Your task to perform on an android device: Open notification settings Image 0: 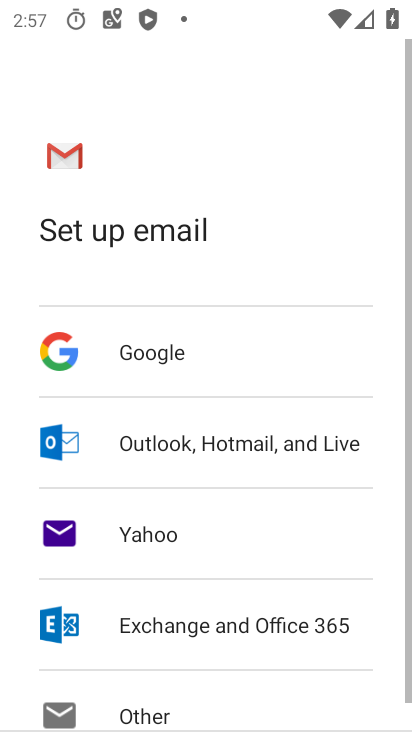
Step 0: press home button
Your task to perform on an android device: Open notification settings Image 1: 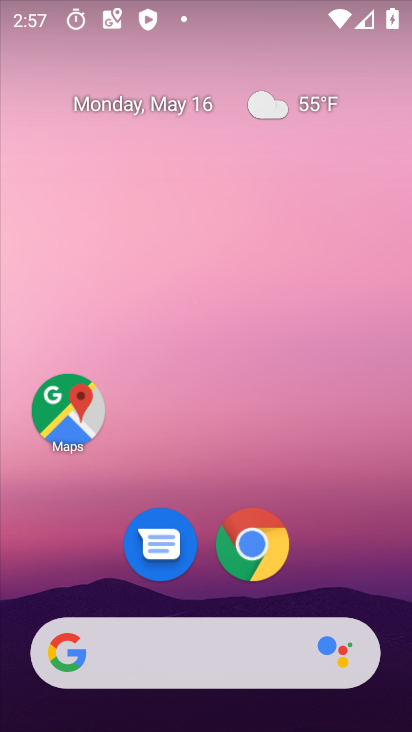
Step 1: drag from (361, 84) to (378, 5)
Your task to perform on an android device: Open notification settings Image 2: 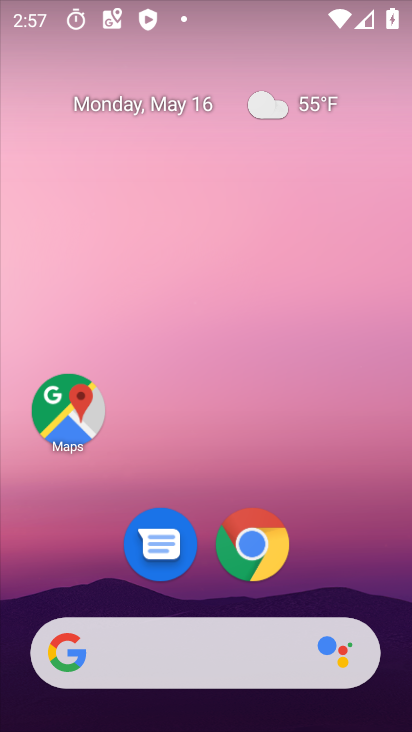
Step 2: drag from (353, 441) to (267, 24)
Your task to perform on an android device: Open notification settings Image 3: 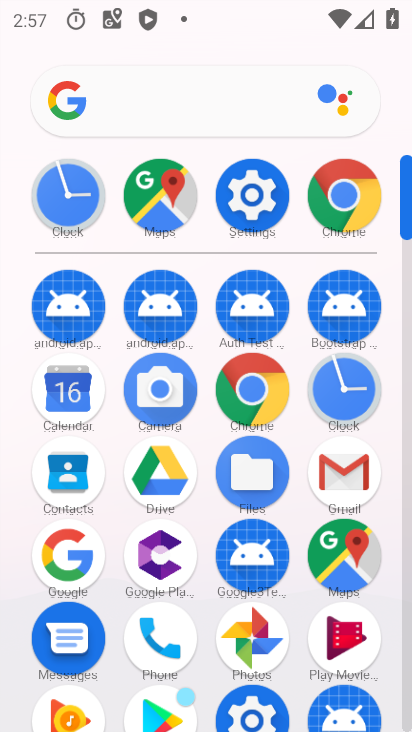
Step 3: click (267, 192)
Your task to perform on an android device: Open notification settings Image 4: 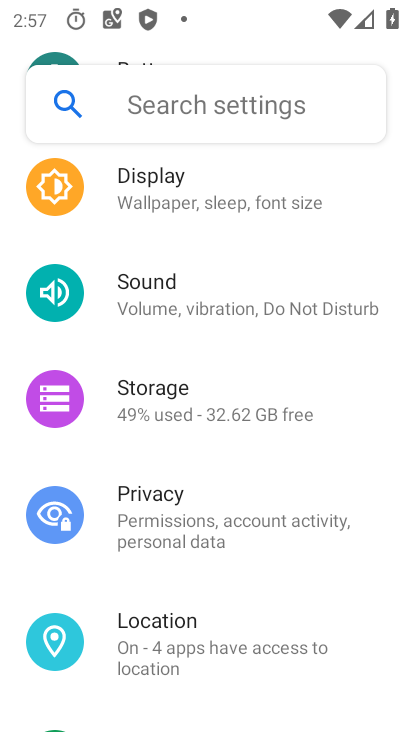
Step 4: drag from (261, 258) to (269, 600)
Your task to perform on an android device: Open notification settings Image 5: 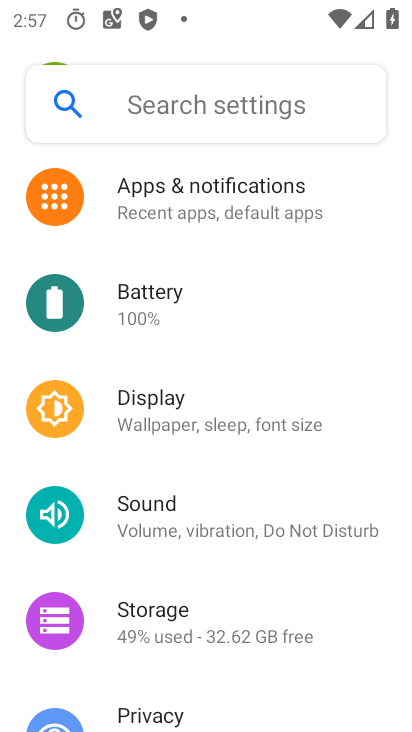
Step 5: click (213, 183)
Your task to perform on an android device: Open notification settings Image 6: 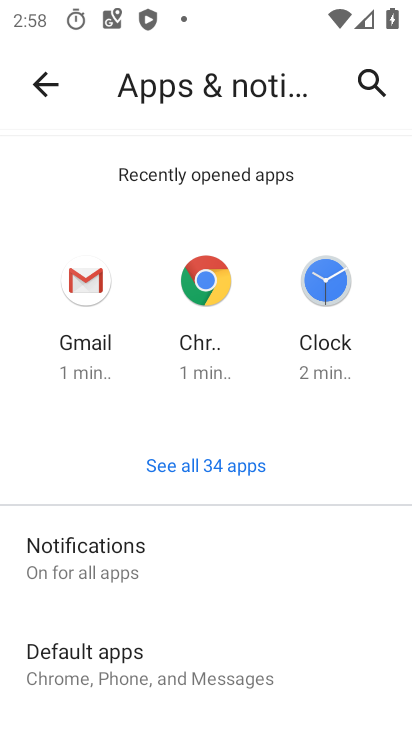
Step 6: click (100, 546)
Your task to perform on an android device: Open notification settings Image 7: 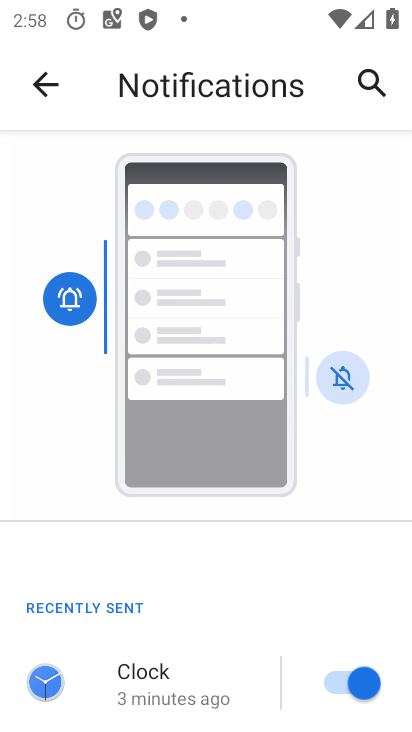
Step 7: task complete